Your task to perform on an android device: toggle wifi Image 0: 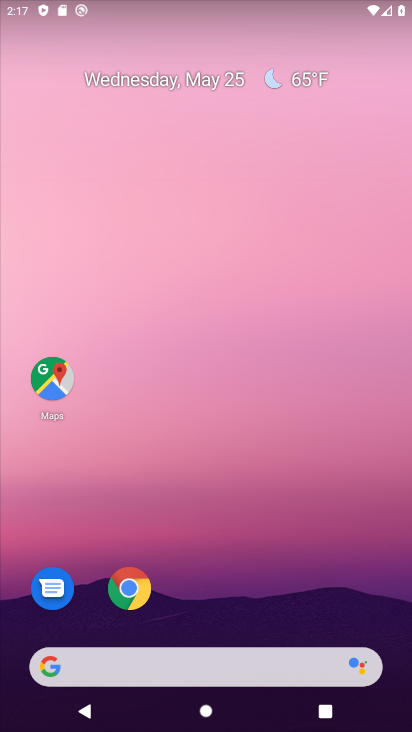
Step 0: drag from (170, 555) to (217, 319)
Your task to perform on an android device: toggle wifi Image 1: 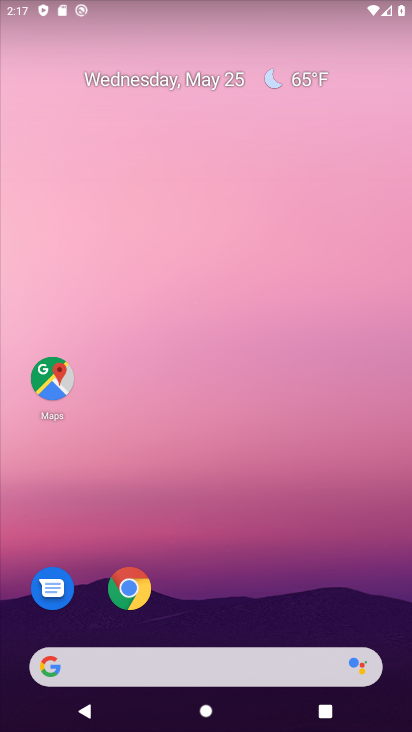
Step 1: drag from (208, 589) to (298, 163)
Your task to perform on an android device: toggle wifi Image 2: 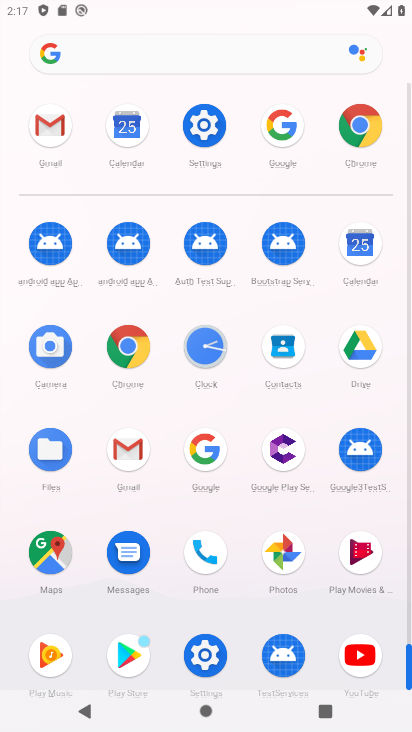
Step 2: click (206, 120)
Your task to perform on an android device: toggle wifi Image 3: 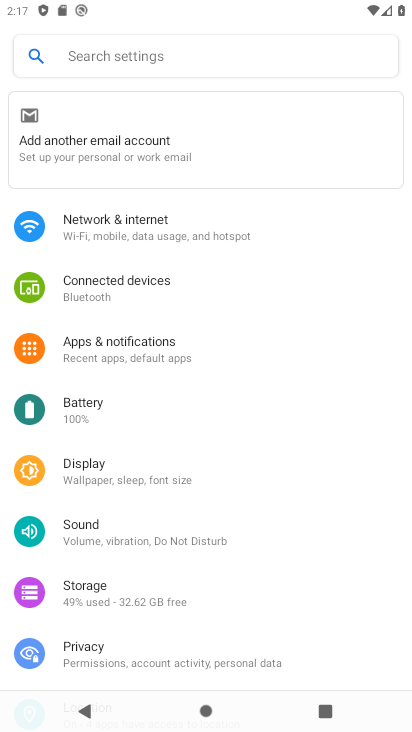
Step 3: click (129, 219)
Your task to perform on an android device: toggle wifi Image 4: 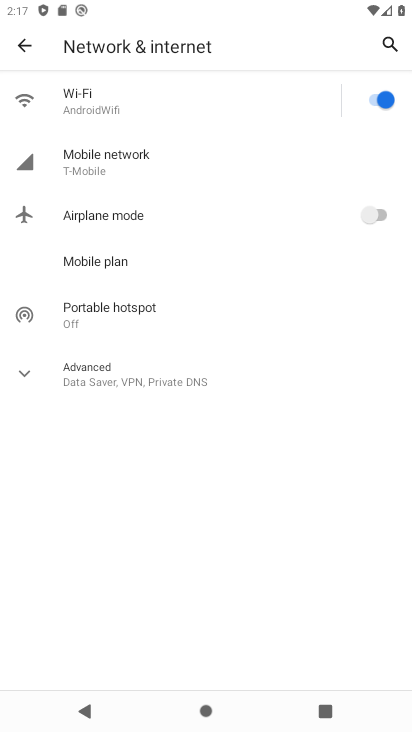
Step 4: click (377, 101)
Your task to perform on an android device: toggle wifi Image 5: 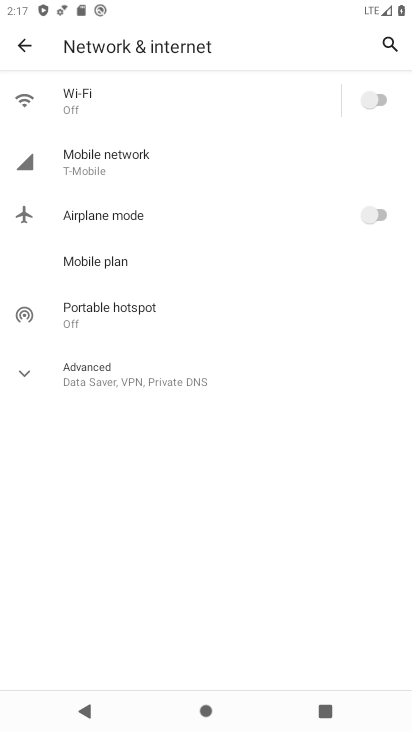
Step 5: task complete